Your task to perform on an android device: What's on the menu at Chipotle? Image 0: 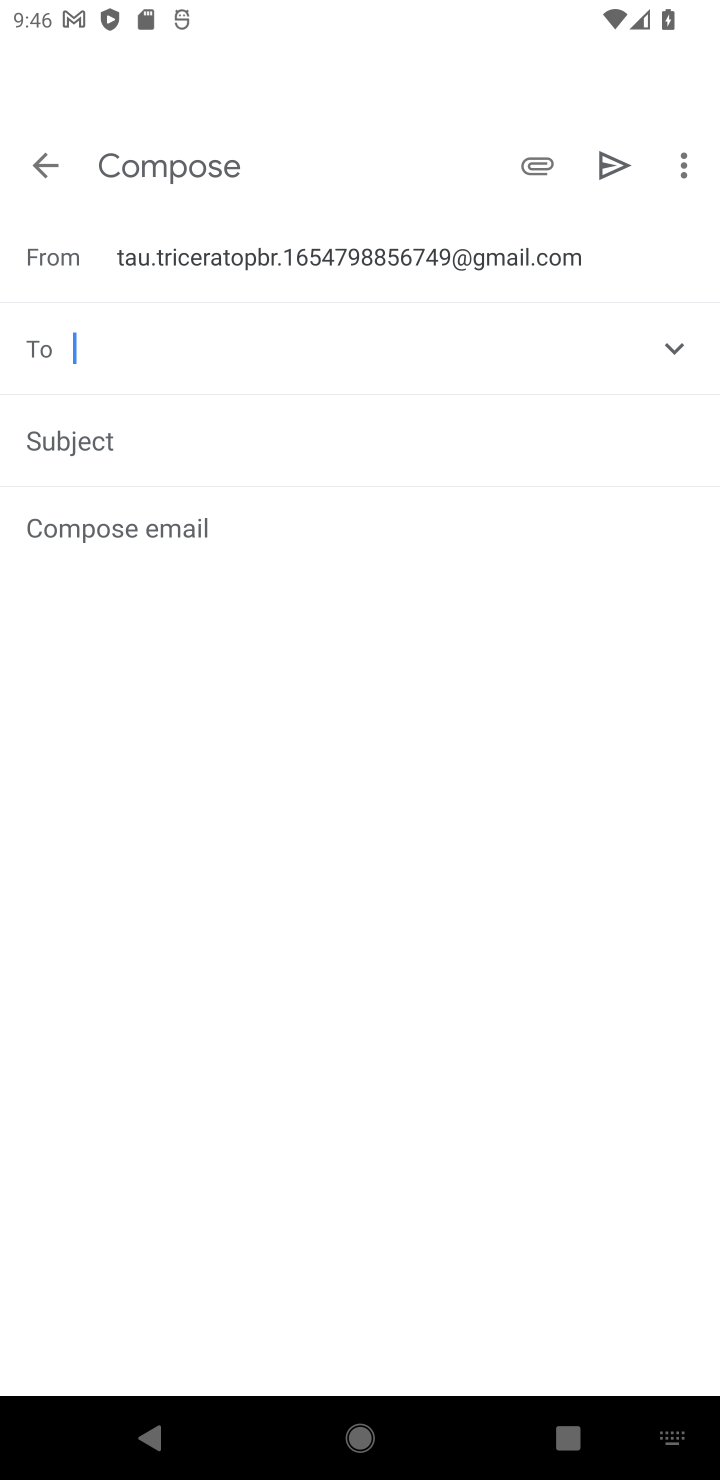
Step 0: press home button
Your task to perform on an android device: What's on the menu at Chipotle? Image 1: 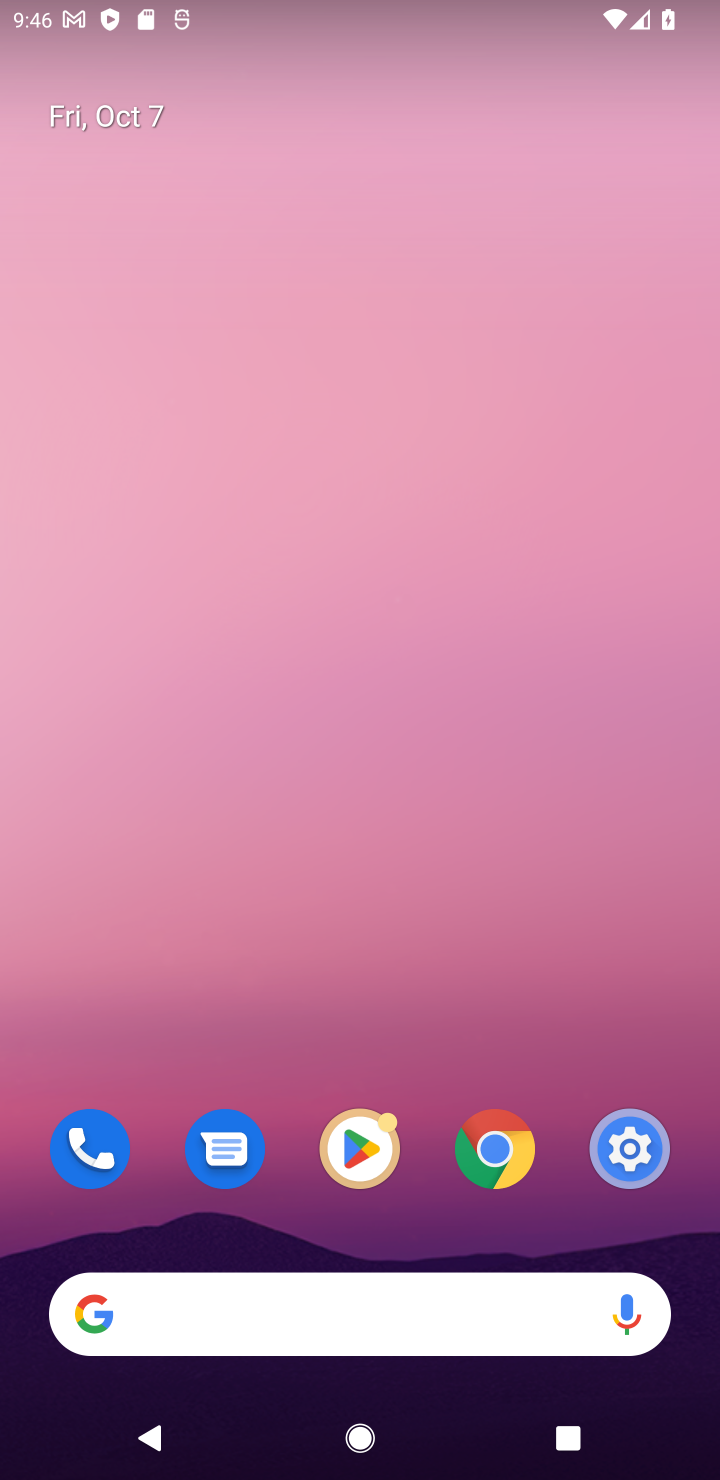
Step 1: click (230, 1346)
Your task to perform on an android device: What's on the menu at Chipotle? Image 2: 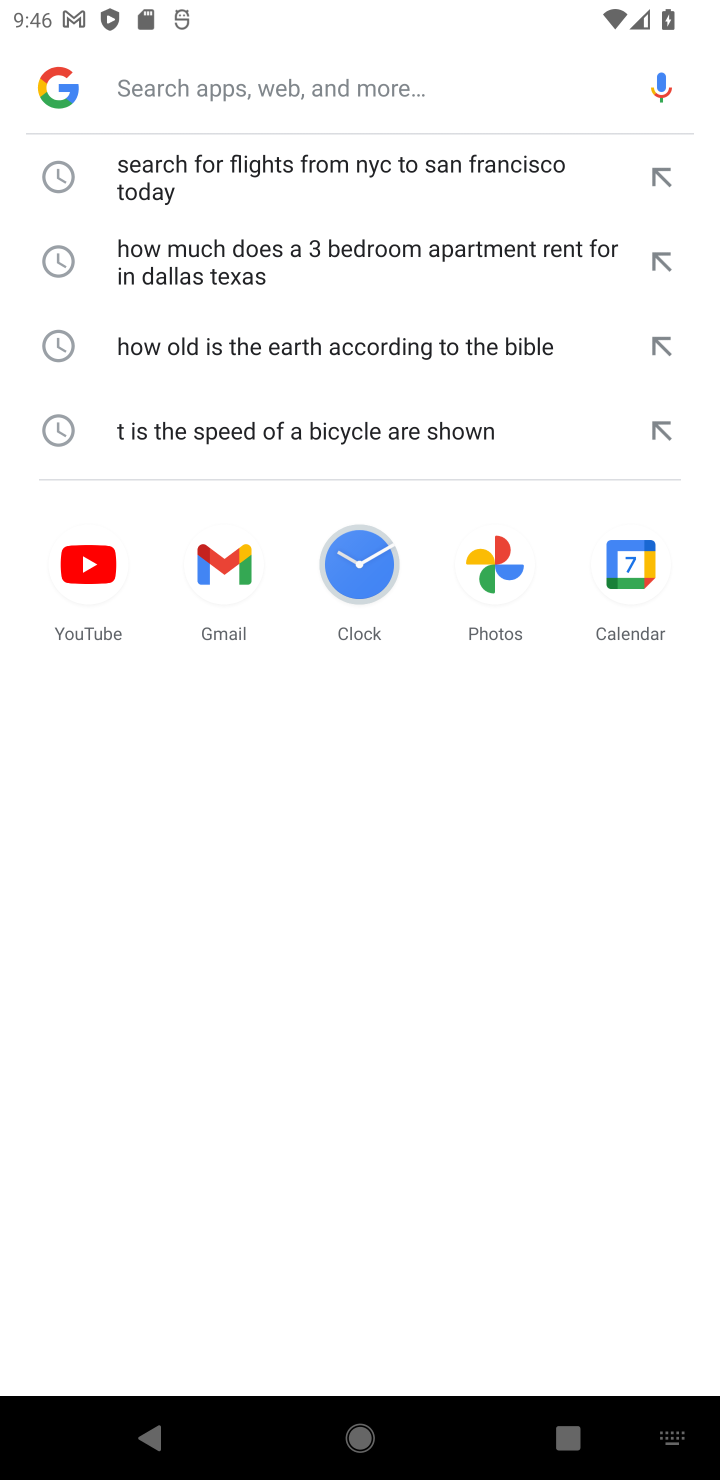
Step 2: type "Search for flights from NYC to San Francisco"
Your task to perform on an android device: What's on the menu at Chipotle? Image 3: 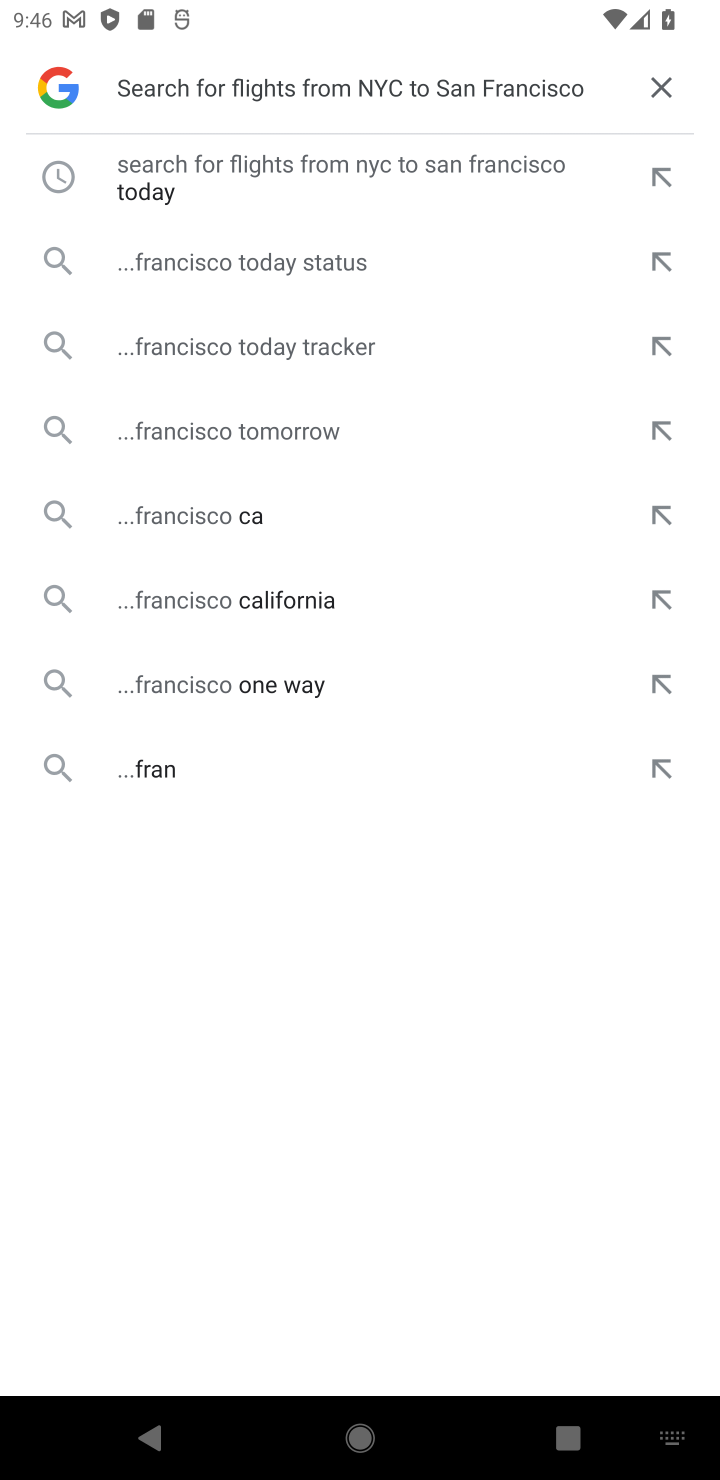
Step 3: click (298, 194)
Your task to perform on an android device: What's on the menu at Chipotle? Image 4: 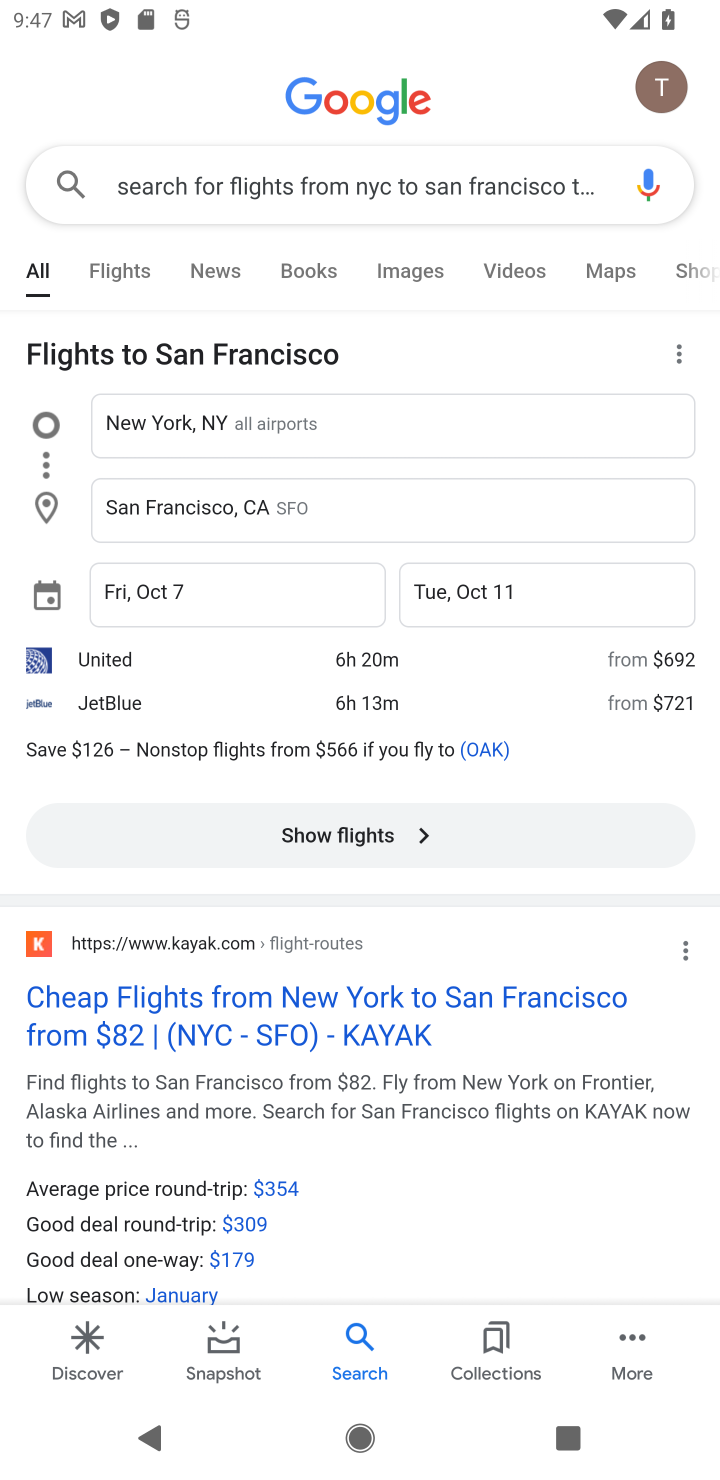
Step 4: task complete